Your task to perform on an android device: stop showing notifications on the lock screen Image 0: 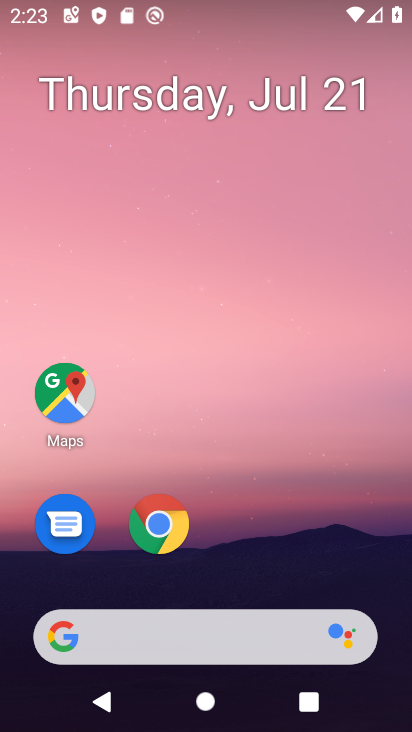
Step 0: drag from (287, 556) to (330, 103)
Your task to perform on an android device: stop showing notifications on the lock screen Image 1: 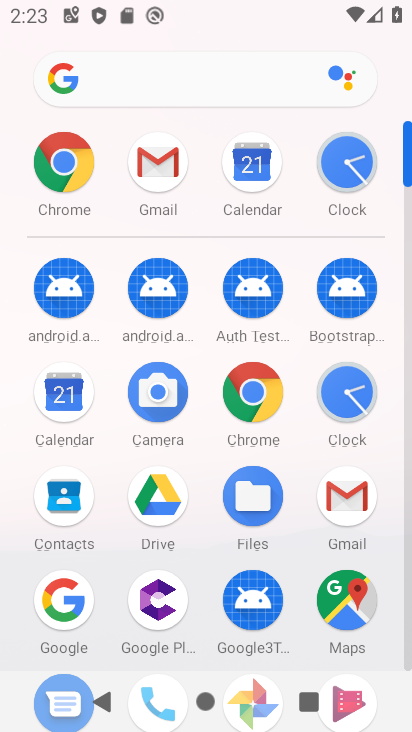
Step 1: drag from (199, 501) to (202, 255)
Your task to perform on an android device: stop showing notifications on the lock screen Image 2: 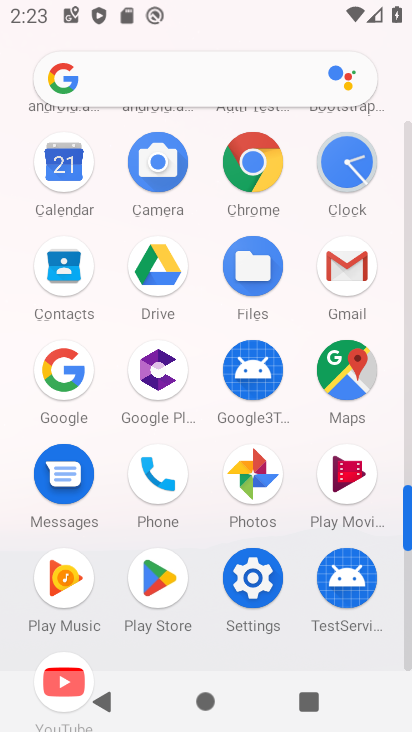
Step 2: click (253, 567)
Your task to perform on an android device: stop showing notifications on the lock screen Image 3: 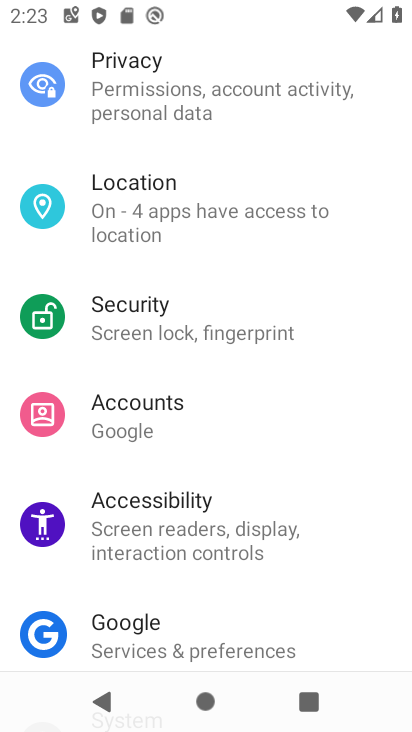
Step 3: drag from (189, 143) to (243, 663)
Your task to perform on an android device: stop showing notifications on the lock screen Image 4: 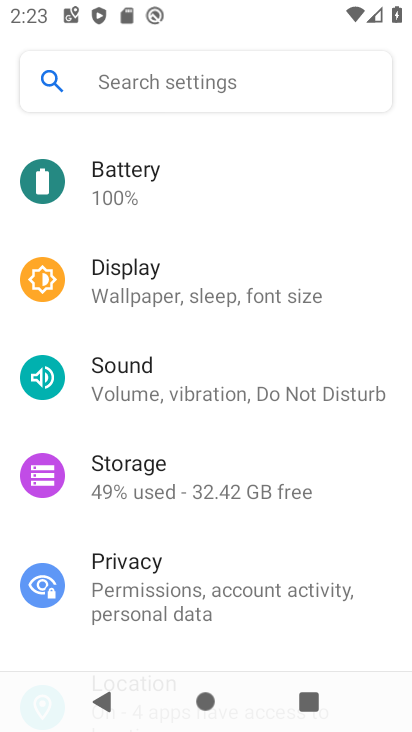
Step 4: drag from (217, 200) to (250, 580)
Your task to perform on an android device: stop showing notifications on the lock screen Image 5: 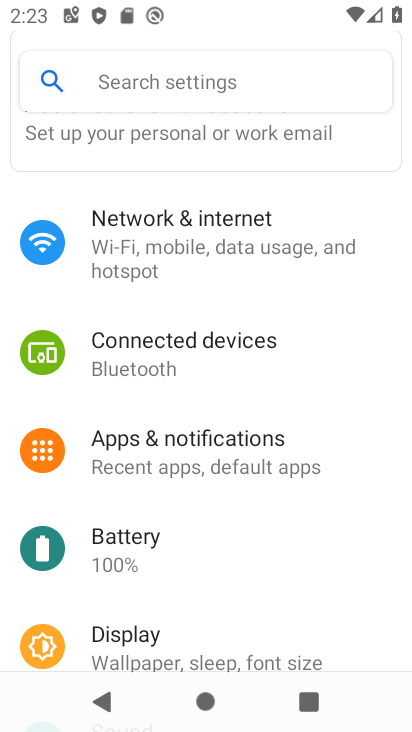
Step 5: click (213, 443)
Your task to perform on an android device: stop showing notifications on the lock screen Image 6: 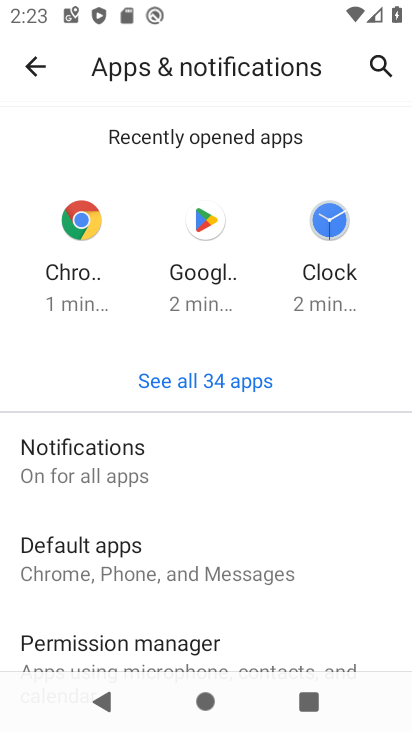
Step 6: click (123, 450)
Your task to perform on an android device: stop showing notifications on the lock screen Image 7: 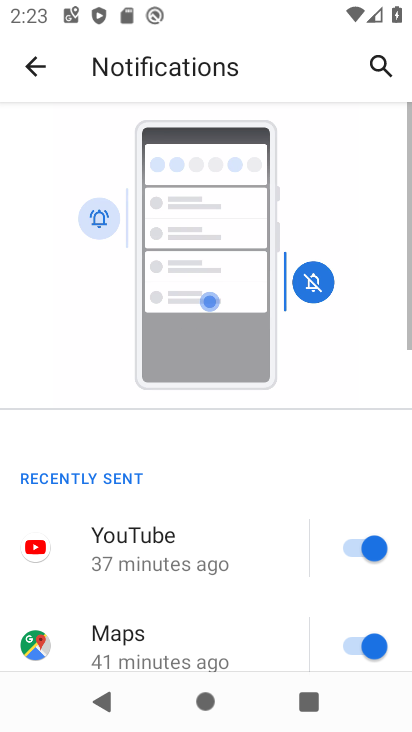
Step 7: drag from (239, 582) to (261, 146)
Your task to perform on an android device: stop showing notifications on the lock screen Image 8: 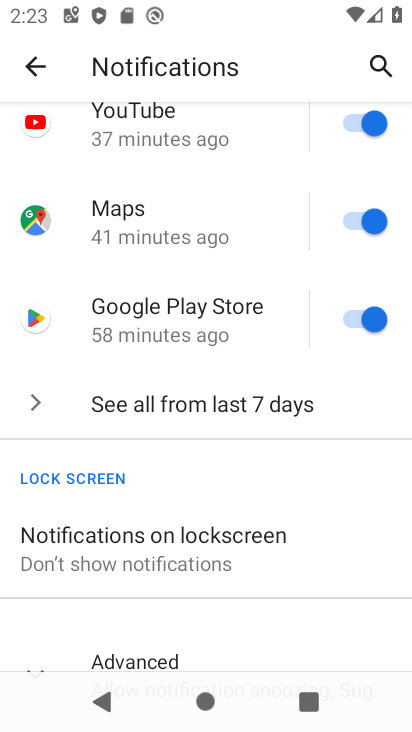
Step 8: click (207, 549)
Your task to perform on an android device: stop showing notifications on the lock screen Image 9: 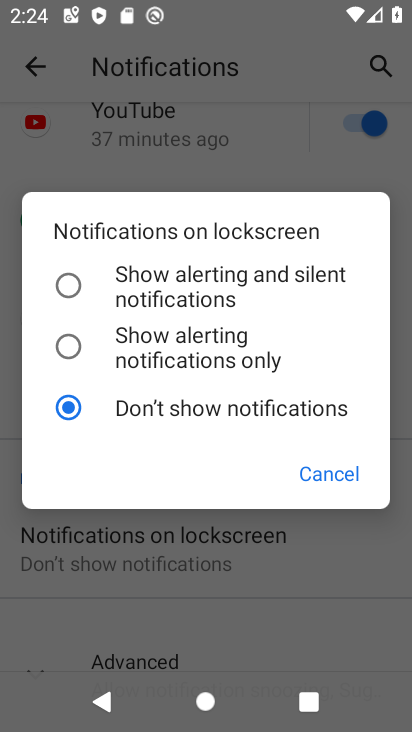
Step 9: click (326, 468)
Your task to perform on an android device: stop showing notifications on the lock screen Image 10: 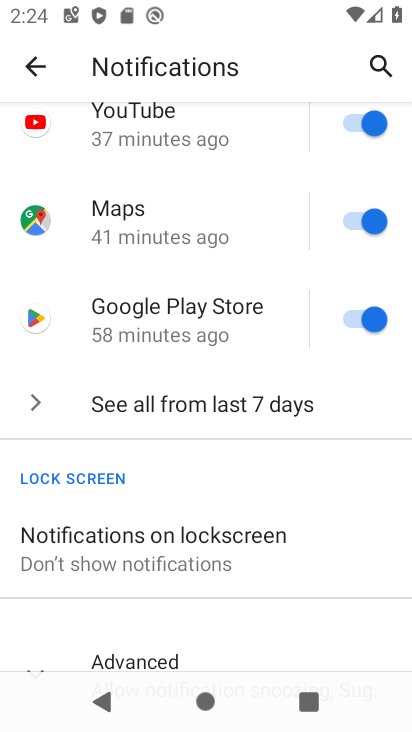
Step 10: task complete